Your task to perform on an android device: What's on my calendar today? Image 0: 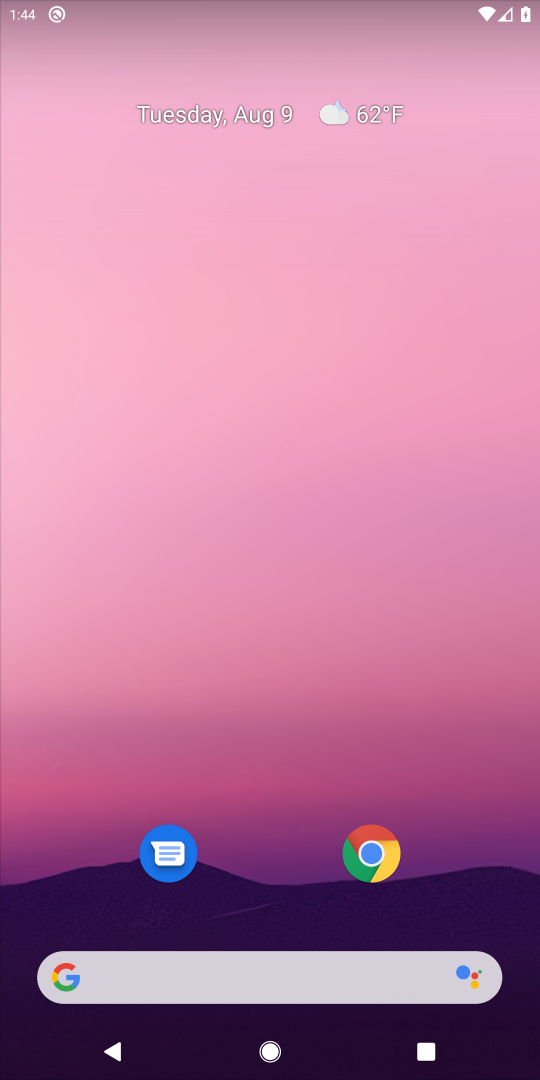
Step 0: press home button
Your task to perform on an android device: What's on my calendar today? Image 1: 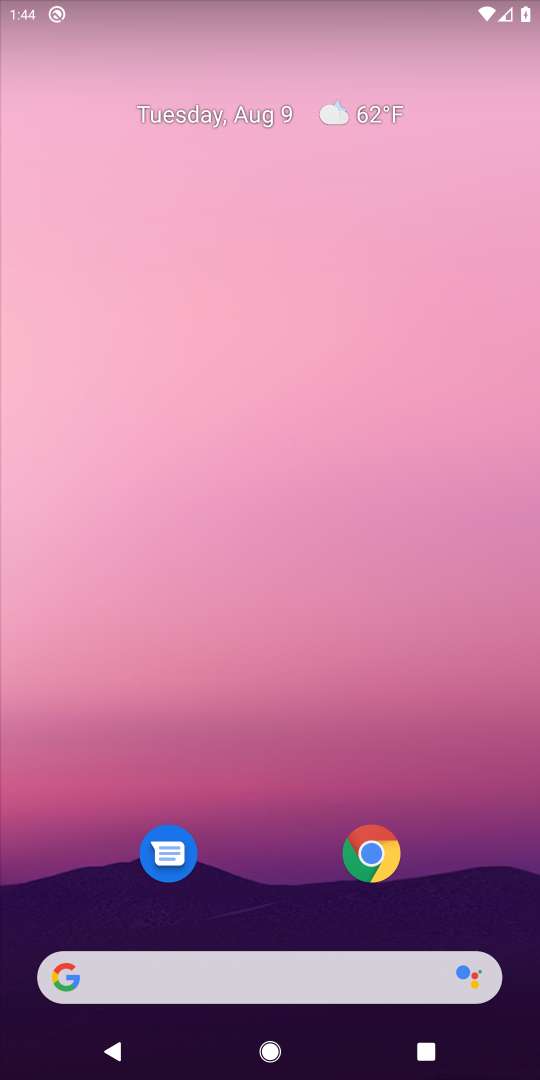
Step 1: drag from (242, 629) to (256, 158)
Your task to perform on an android device: What's on my calendar today? Image 2: 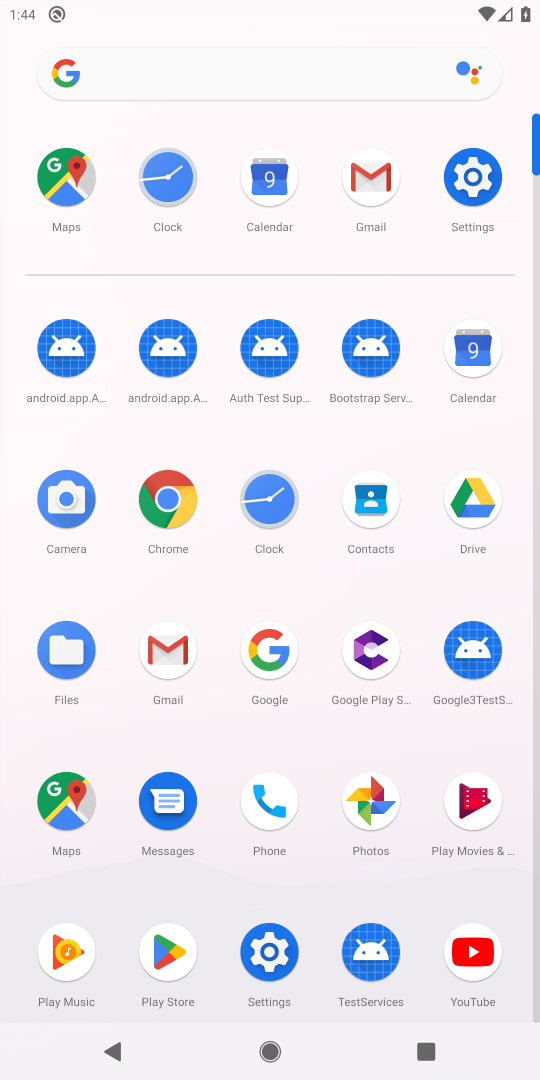
Step 2: click (465, 369)
Your task to perform on an android device: What's on my calendar today? Image 3: 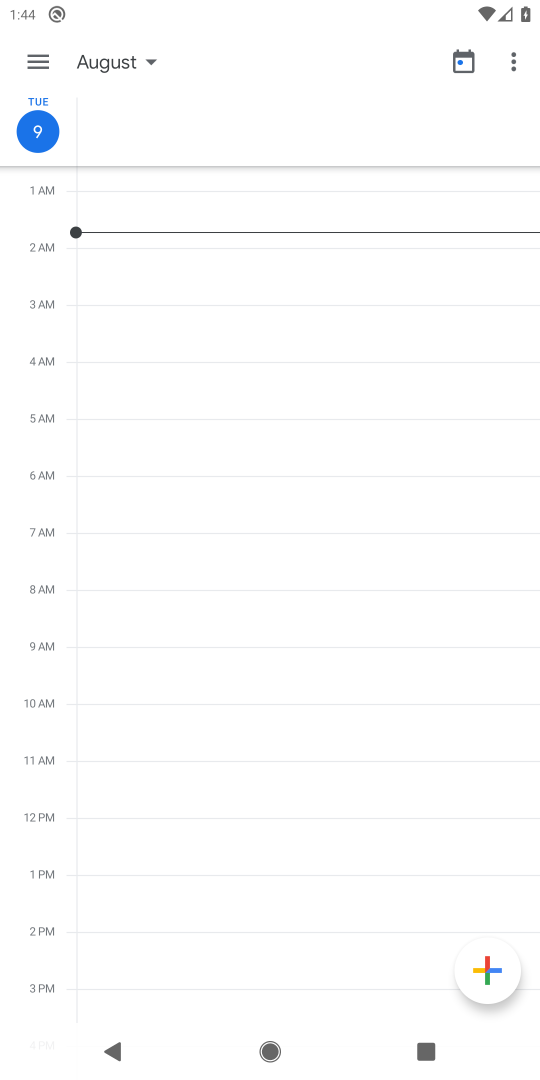
Step 3: task complete